Your task to perform on an android device: open device folders in google photos Image 0: 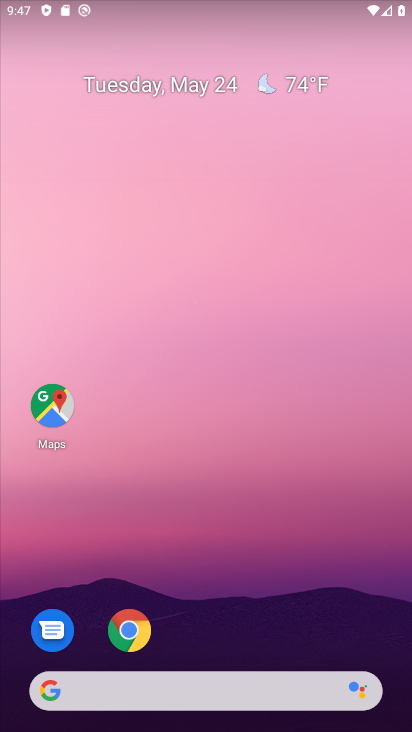
Step 0: drag from (306, 629) to (235, 32)
Your task to perform on an android device: open device folders in google photos Image 1: 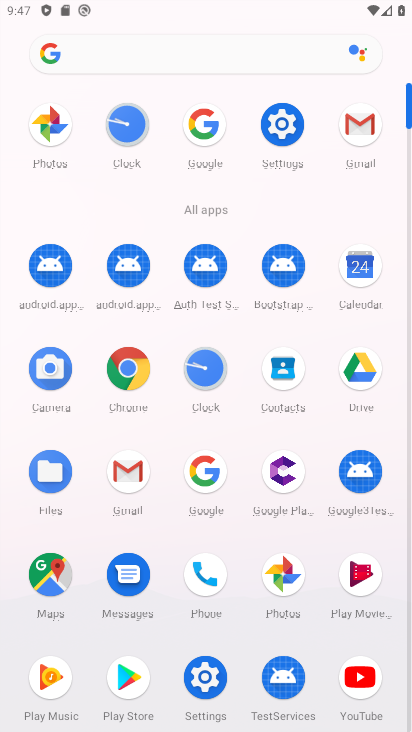
Step 1: click (38, 124)
Your task to perform on an android device: open device folders in google photos Image 2: 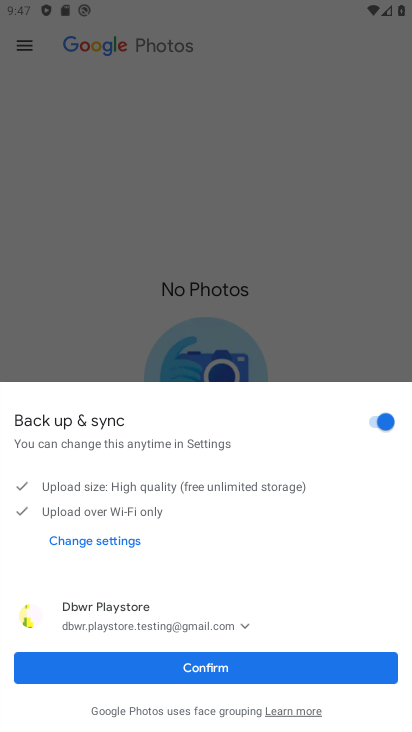
Step 2: click (230, 670)
Your task to perform on an android device: open device folders in google photos Image 3: 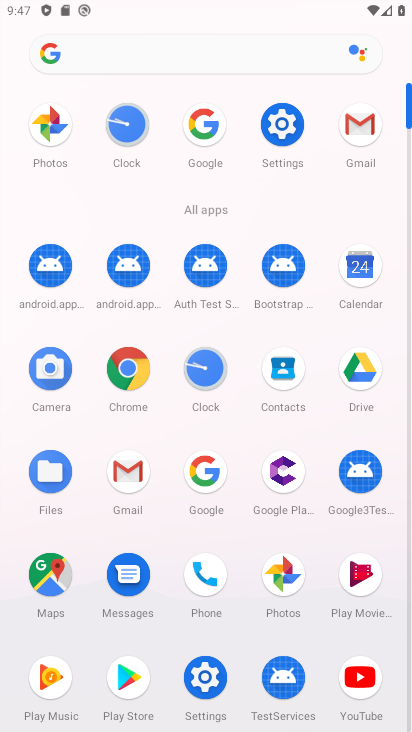
Step 3: click (33, 45)
Your task to perform on an android device: open device folders in google photos Image 4: 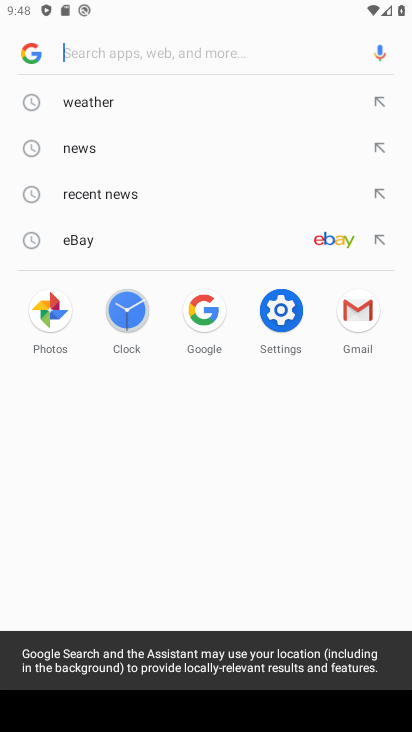
Step 4: press home button
Your task to perform on an android device: open device folders in google photos Image 5: 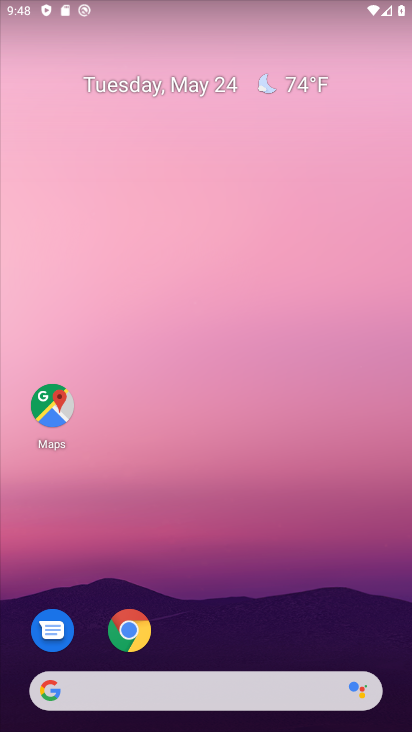
Step 5: drag from (236, 517) to (192, 0)
Your task to perform on an android device: open device folders in google photos Image 6: 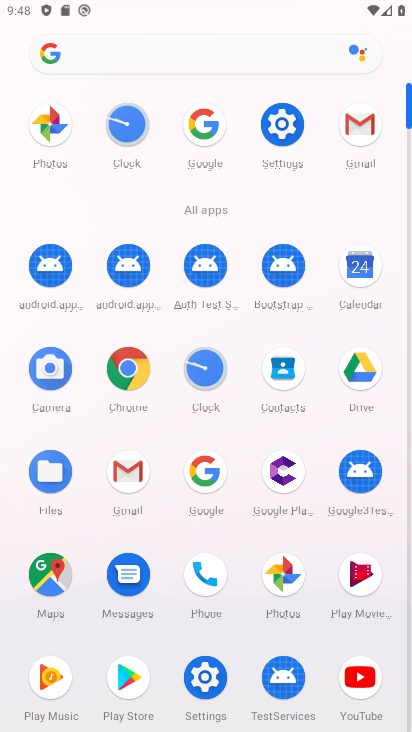
Step 6: click (278, 572)
Your task to perform on an android device: open device folders in google photos Image 7: 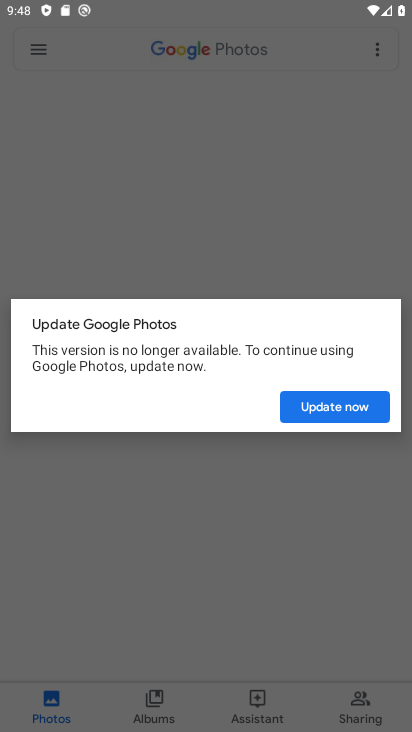
Step 7: click (29, 49)
Your task to perform on an android device: open device folders in google photos Image 8: 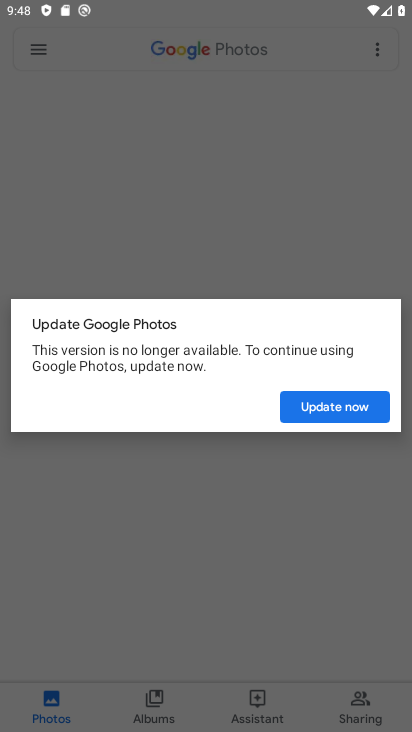
Step 8: click (366, 403)
Your task to perform on an android device: open device folders in google photos Image 9: 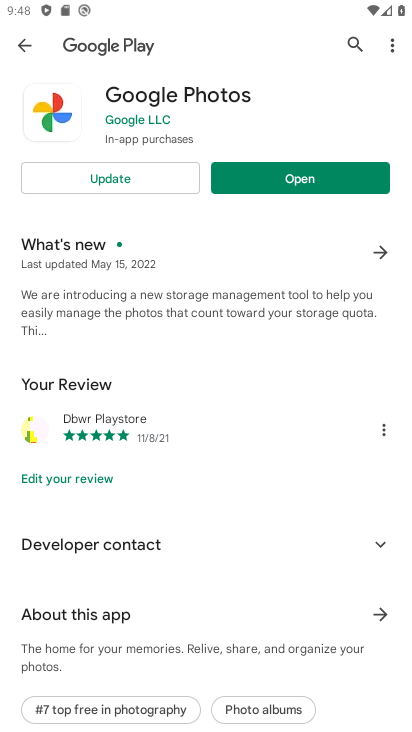
Step 9: click (298, 181)
Your task to perform on an android device: open device folders in google photos Image 10: 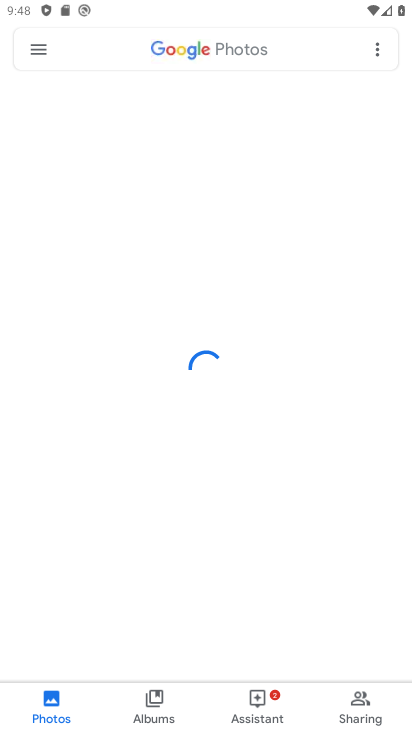
Step 10: click (33, 47)
Your task to perform on an android device: open device folders in google photos Image 11: 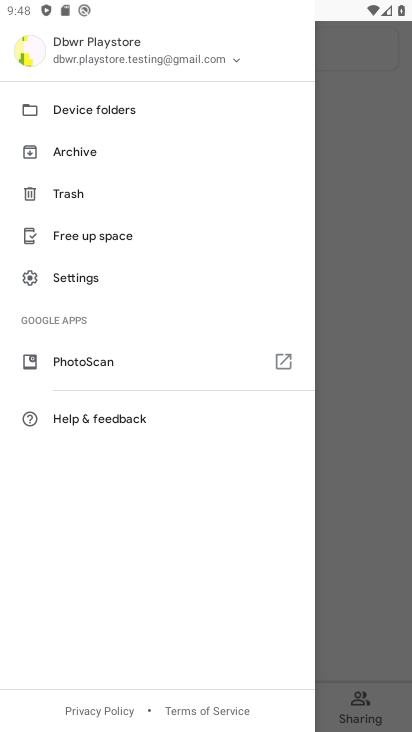
Step 11: click (55, 110)
Your task to perform on an android device: open device folders in google photos Image 12: 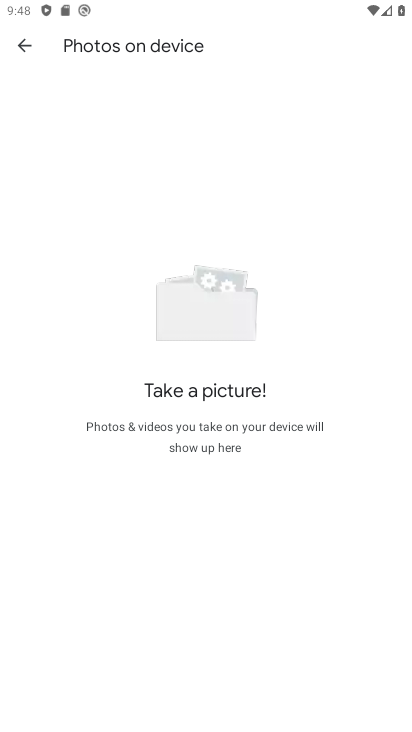
Step 12: task complete